Your task to perform on an android device: turn notification dots off Image 0: 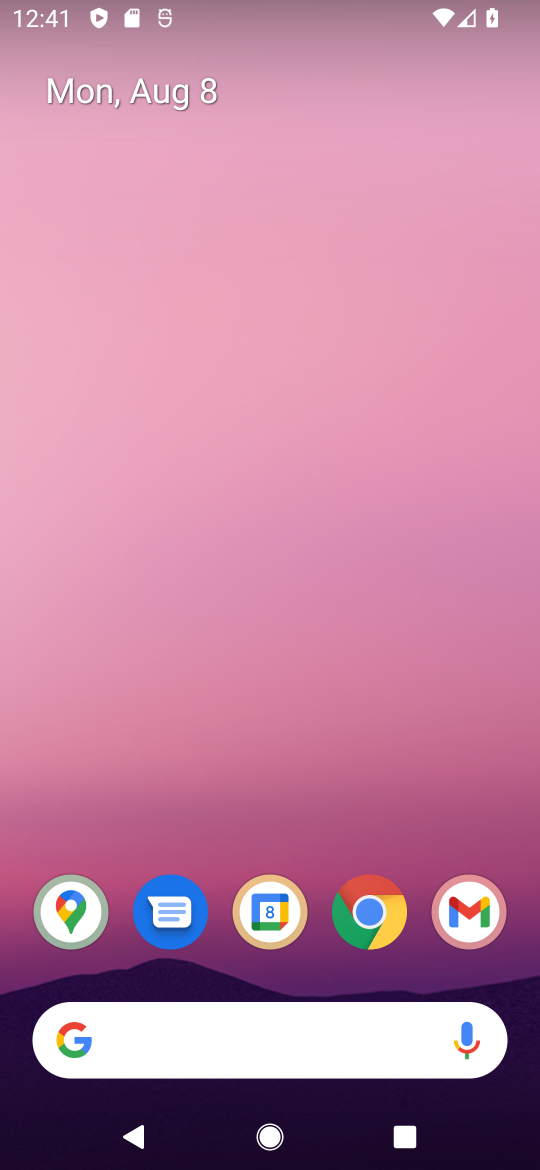
Step 0: drag from (222, 1010) to (361, 15)
Your task to perform on an android device: turn notification dots off Image 1: 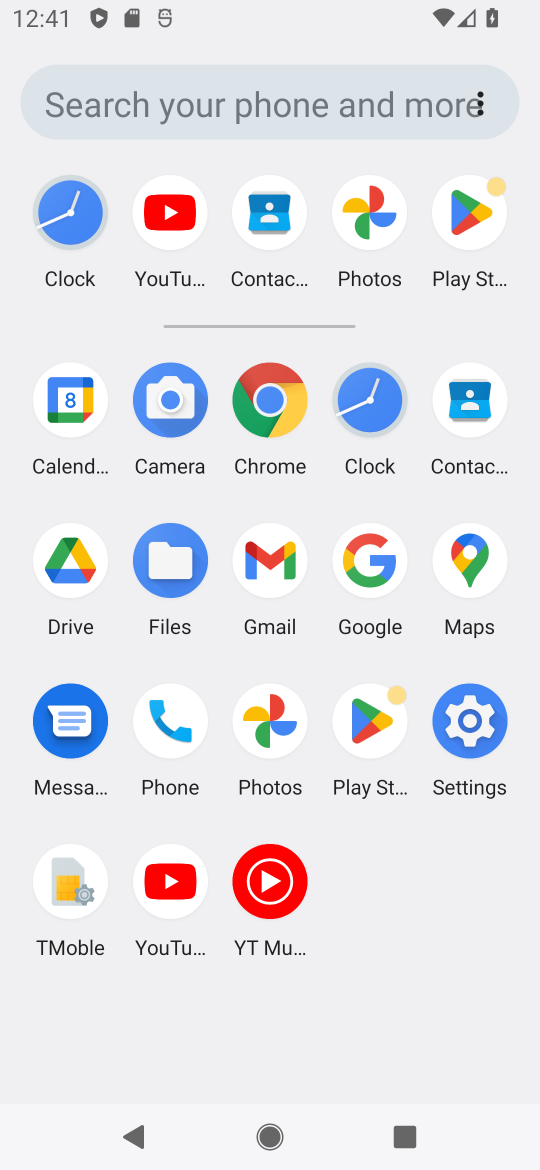
Step 1: click (475, 742)
Your task to perform on an android device: turn notification dots off Image 2: 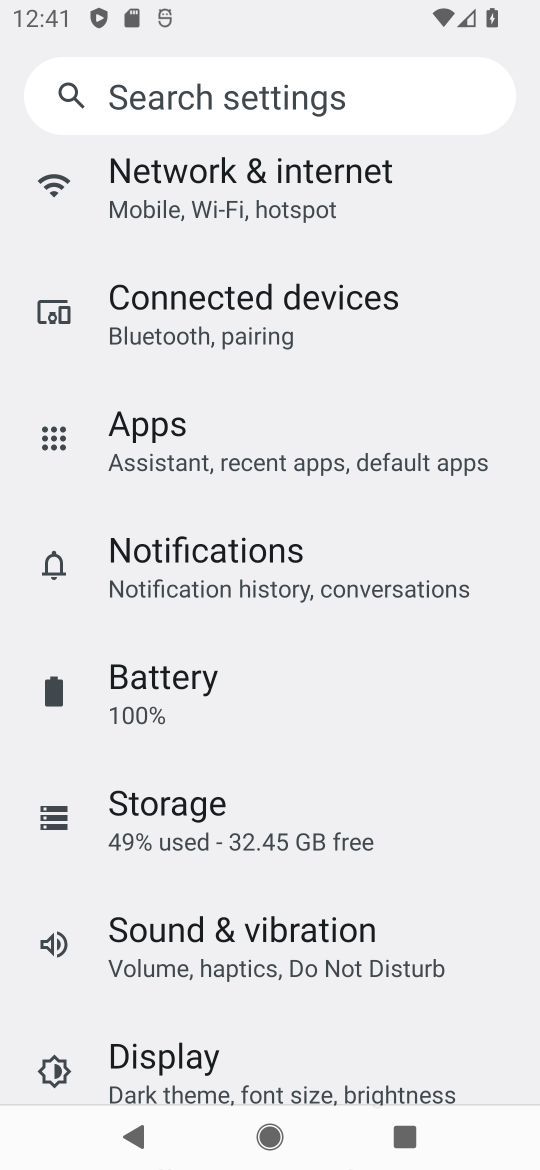
Step 2: click (254, 565)
Your task to perform on an android device: turn notification dots off Image 3: 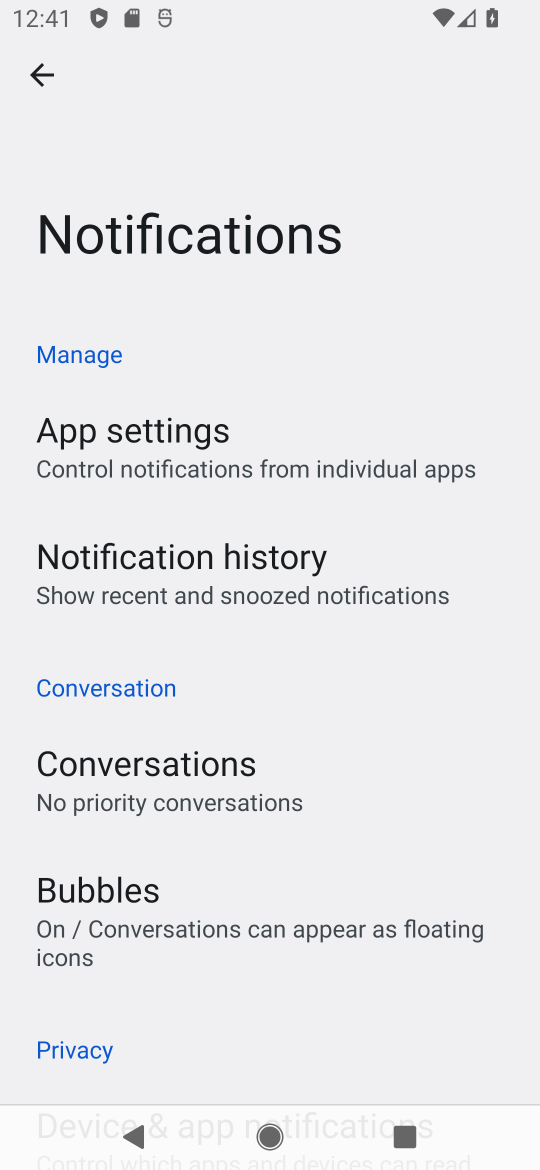
Step 3: drag from (216, 1029) to (338, 218)
Your task to perform on an android device: turn notification dots off Image 4: 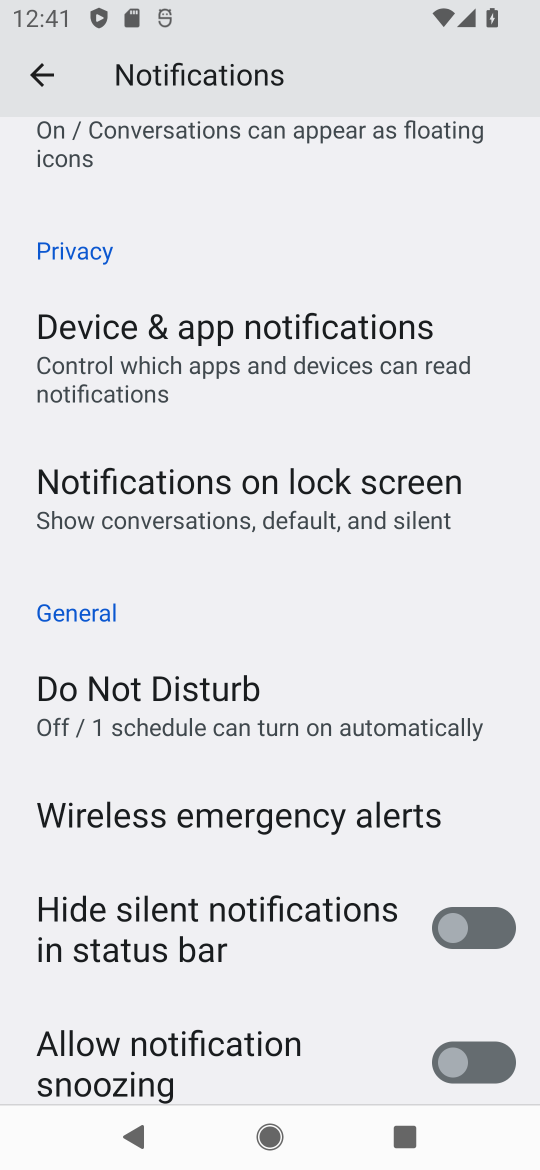
Step 4: drag from (278, 1036) to (309, 552)
Your task to perform on an android device: turn notification dots off Image 5: 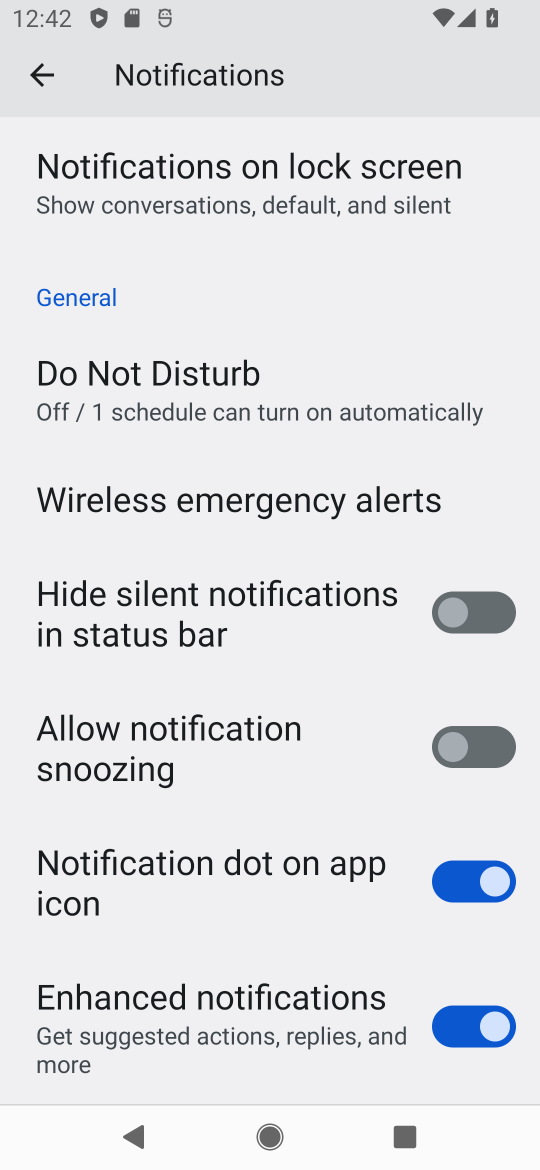
Step 5: click (469, 879)
Your task to perform on an android device: turn notification dots off Image 6: 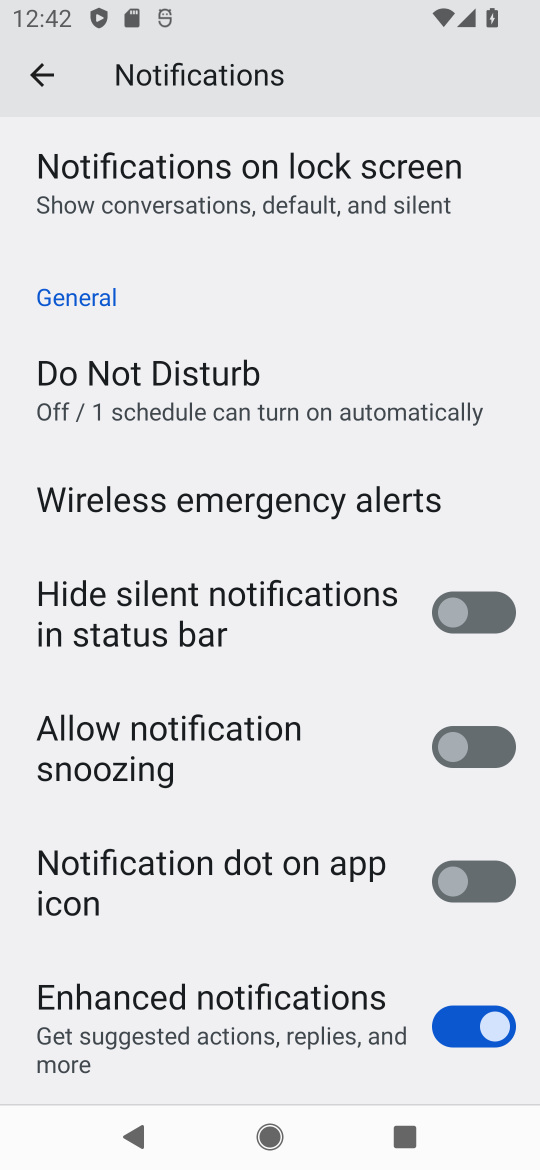
Step 6: task complete